Your task to perform on an android device: Look up the best rated headphones on Aliexpress Image 0: 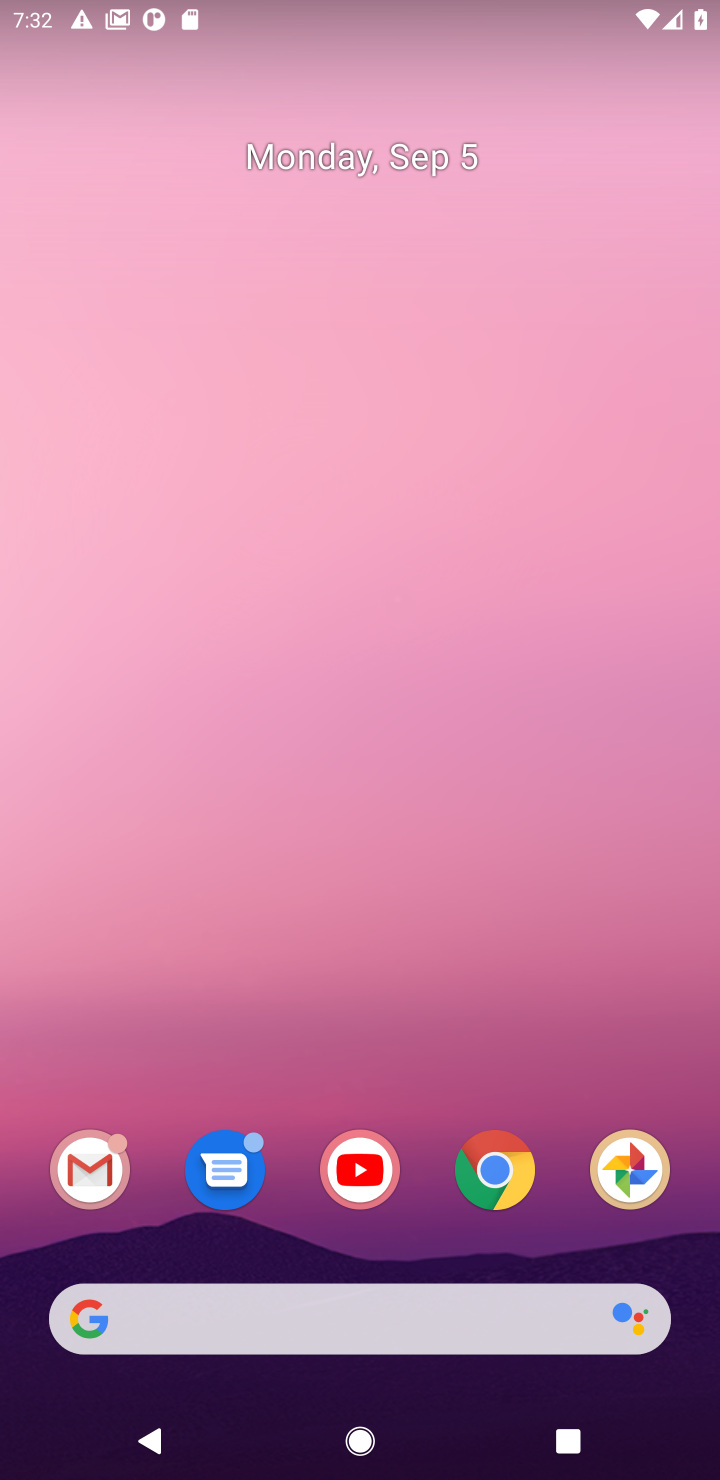
Step 0: click (483, 1183)
Your task to perform on an android device: Look up the best rated headphones on Aliexpress Image 1: 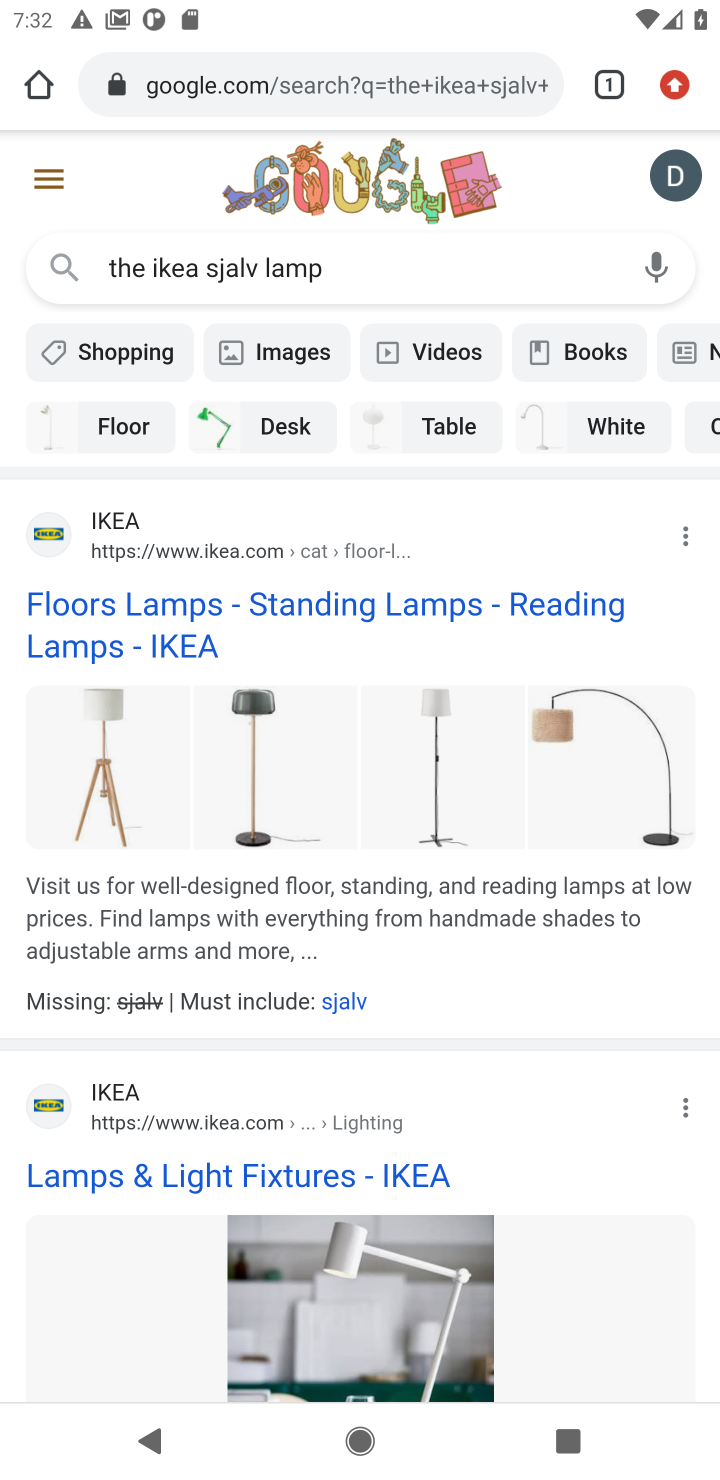
Step 1: click (404, 94)
Your task to perform on an android device: Look up the best rated headphones on Aliexpress Image 2: 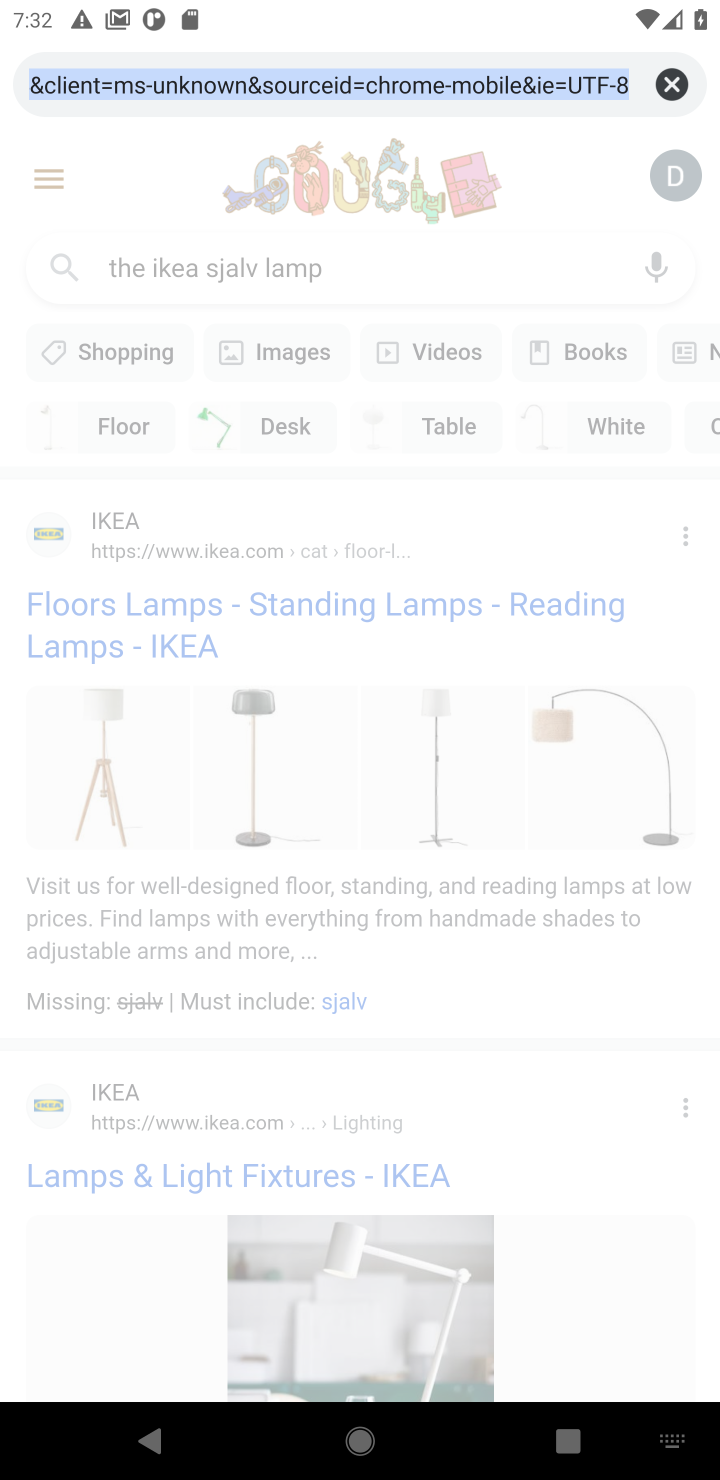
Step 2: type "AliExpress"
Your task to perform on an android device: Look up the best rated headphones on Aliexpress Image 3: 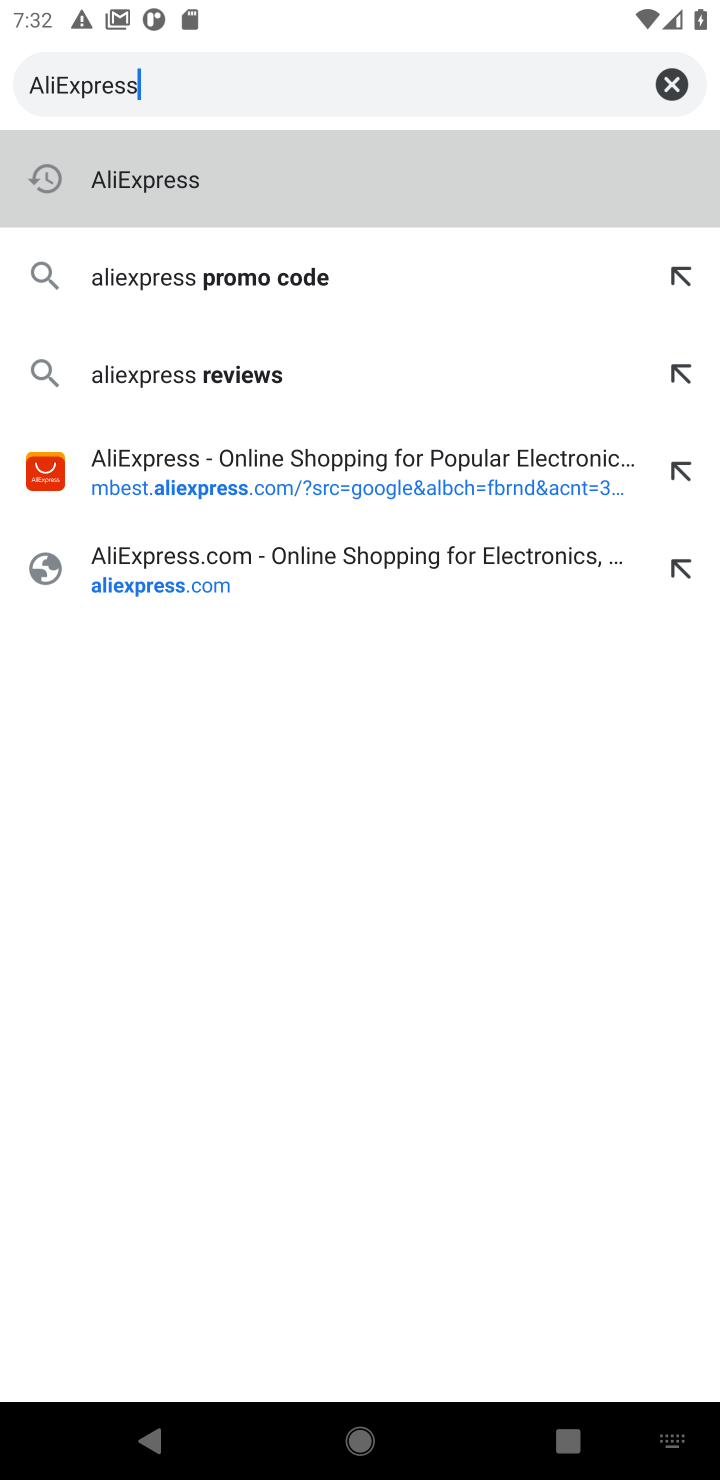
Step 3: click (281, 173)
Your task to perform on an android device: Look up the best rated headphones on Aliexpress Image 4: 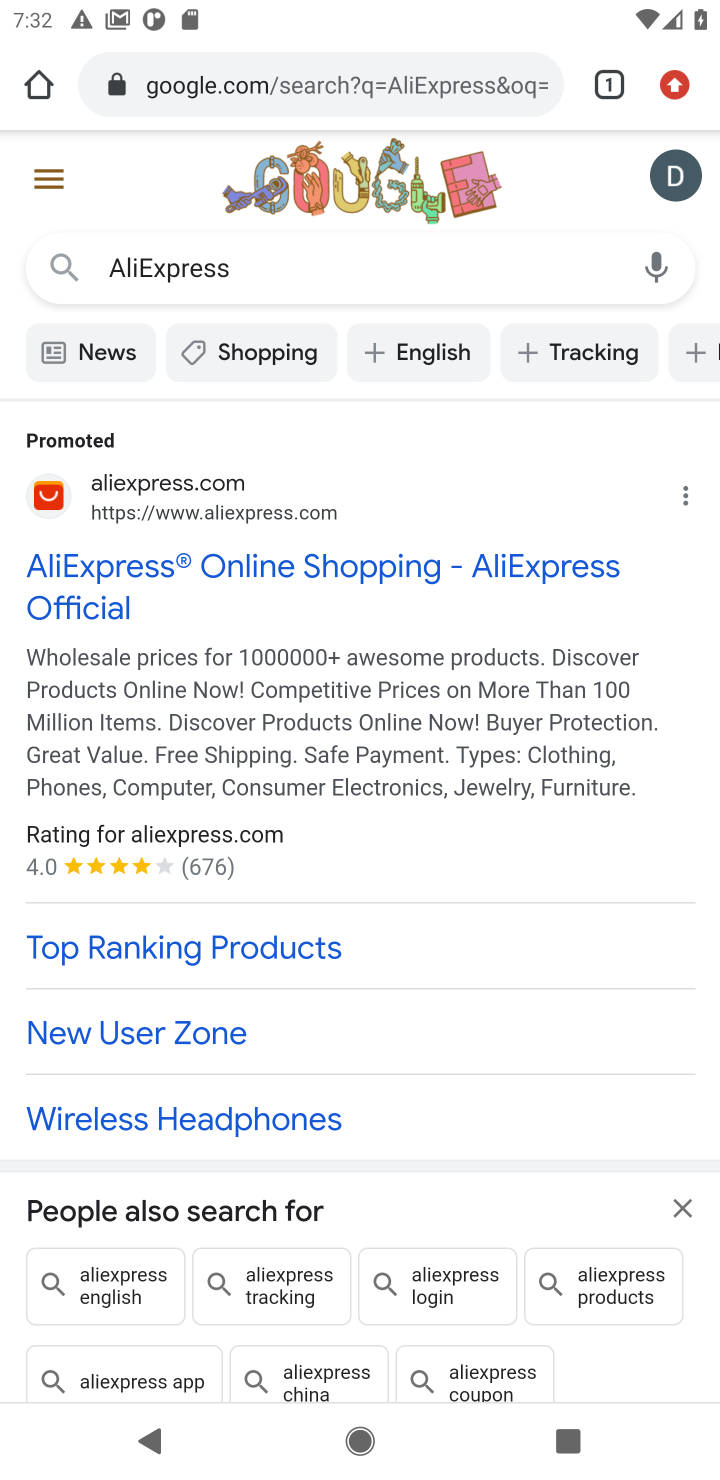
Step 4: click (141, 585)
Your task to perform on an android device: Look up the best rated headphones on Aliexpress Image 5: 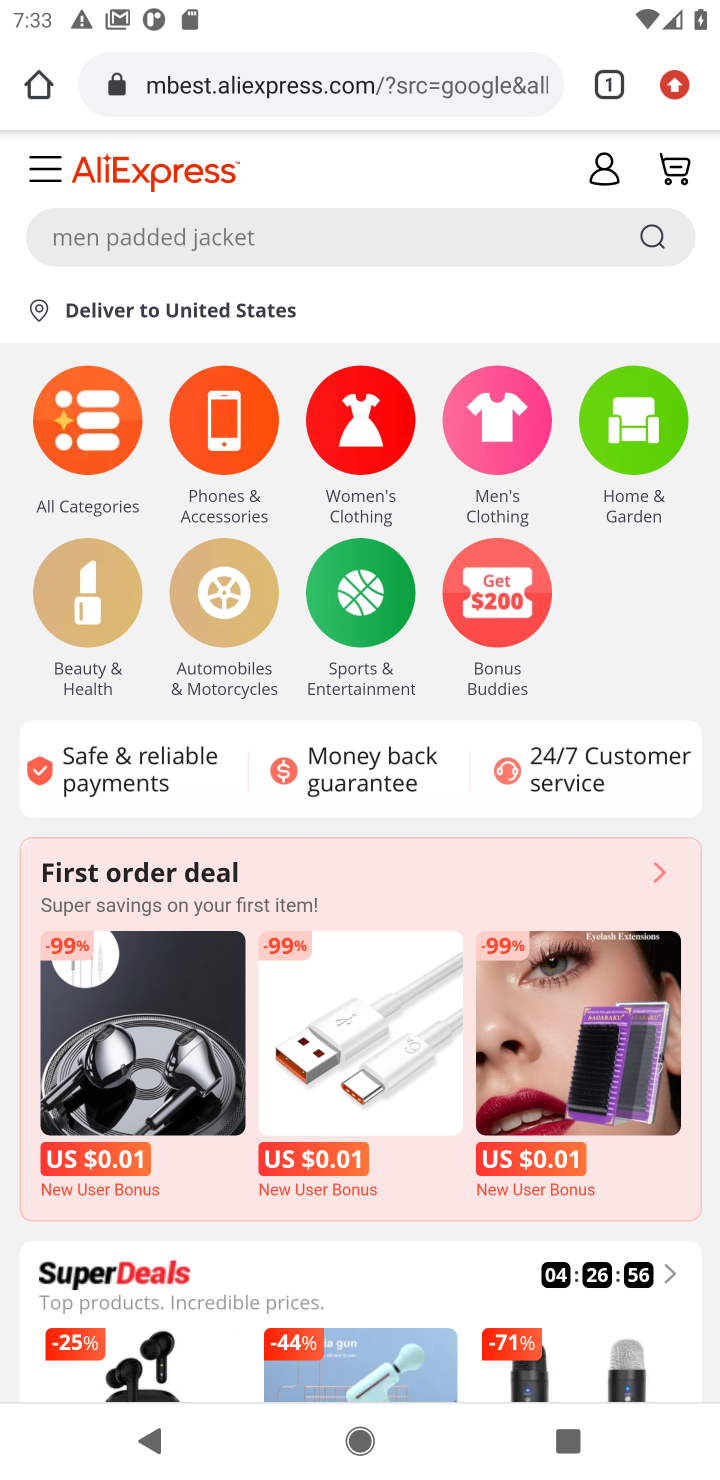
Step 5: click (235, 219)
Your task to perform on an android device: Look up the best rated headphones on Aliexpress Image 6: 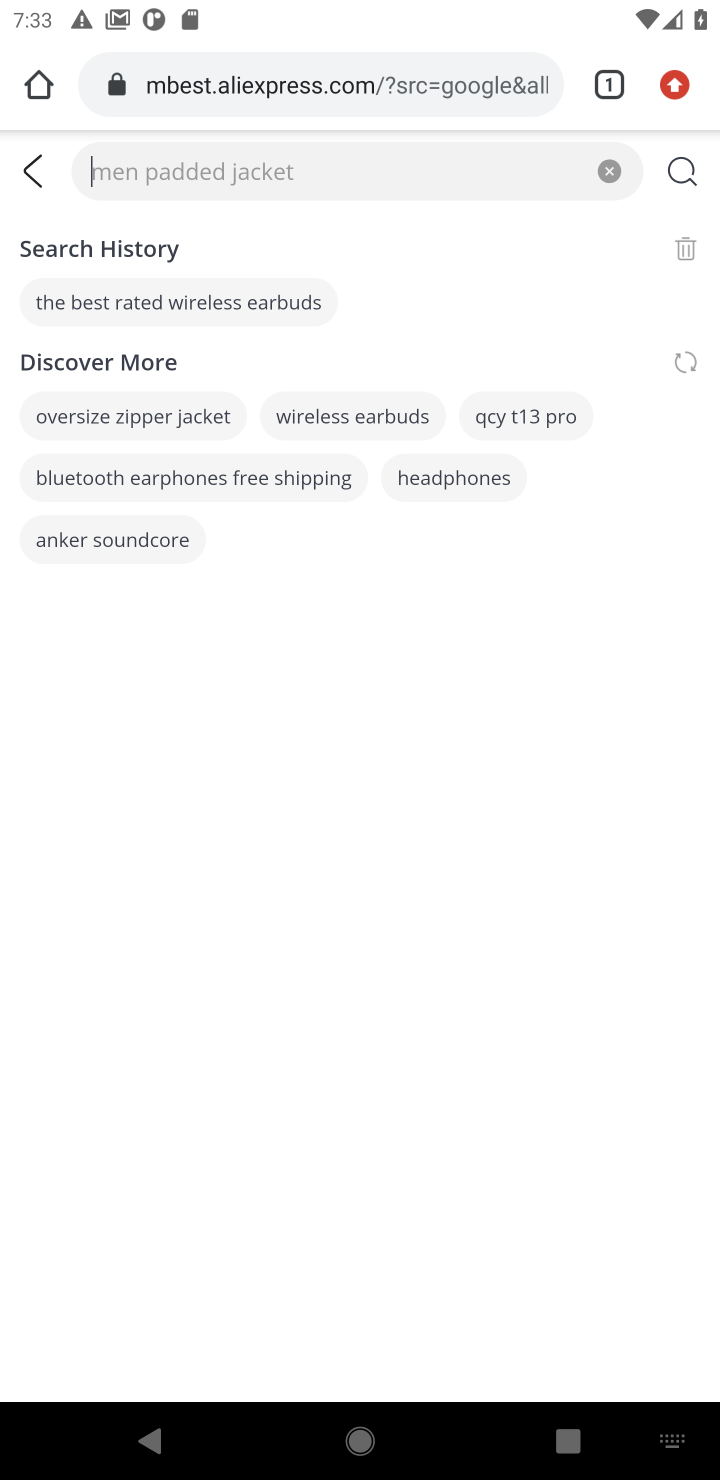
Step 6: type "the best rated headphones"
Your task to perform on an android device: Look up the best rated headphones on Aliexpress Image 7: 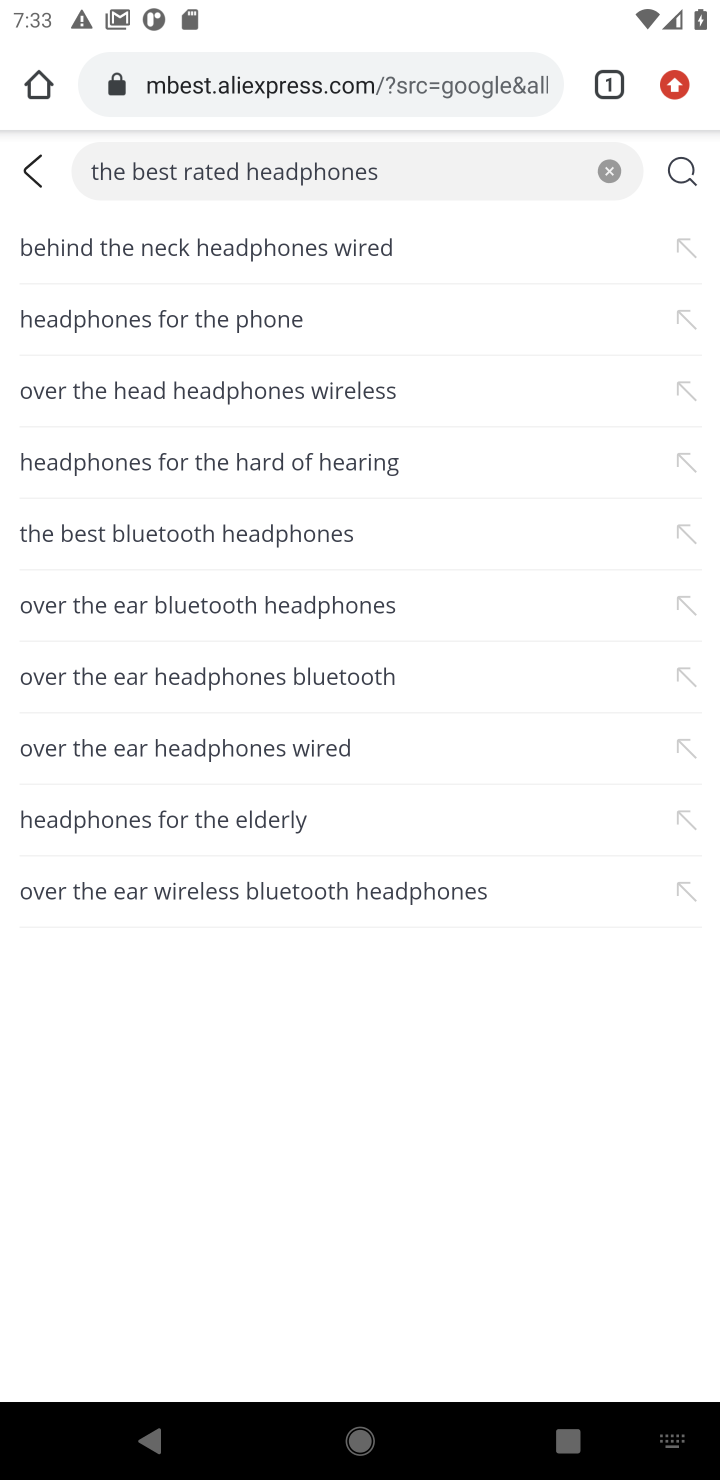
Step 7: click (676, 165)
Your task to perform on an android device: Look up the best rated headphones on Aliexpress Image 8: 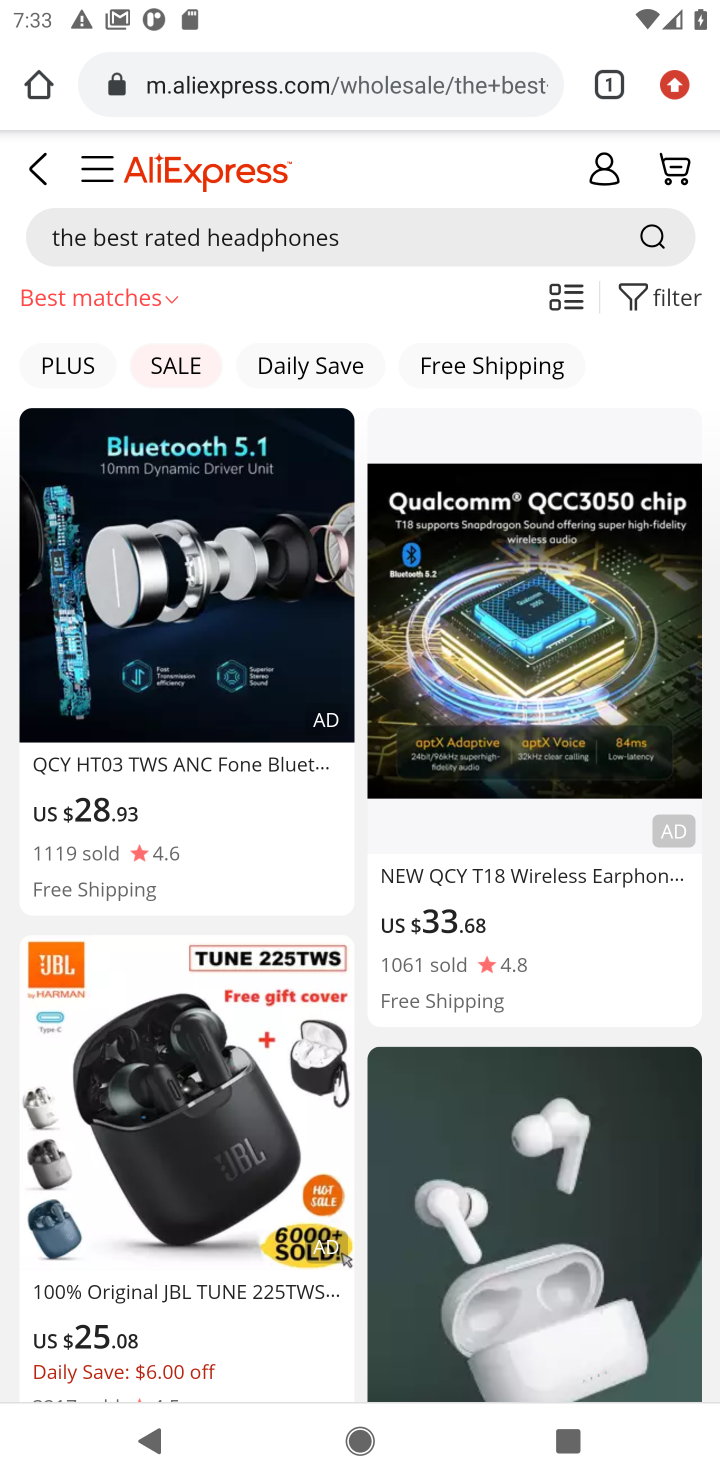
Step 8: task complete